Your task to perform on an android device: Add "usb-b" to the cart on walmart, then select checkout. Image 0: 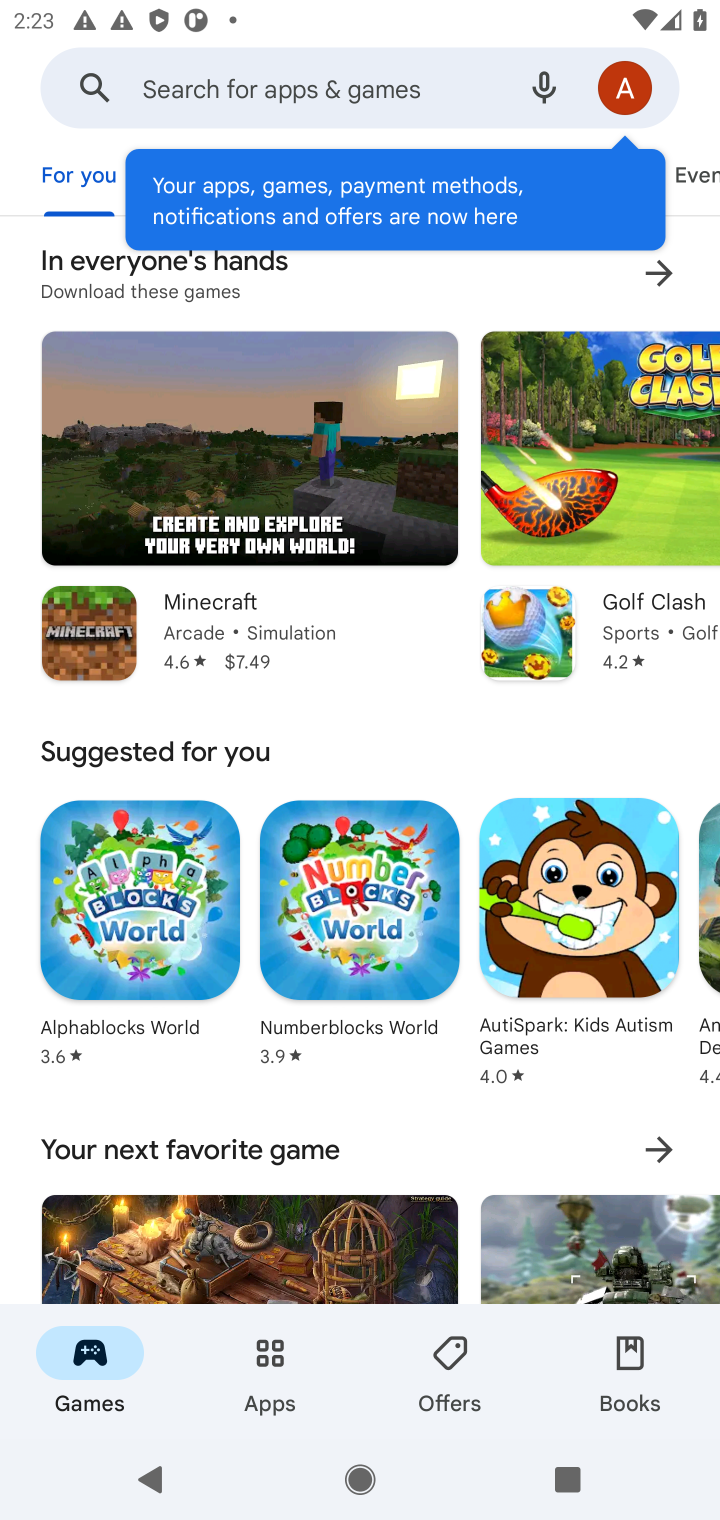
Step 0: press home button
Your task to perform on an android device: Add "usb-b" to the cart on walmart, then select checkout. Image 1: 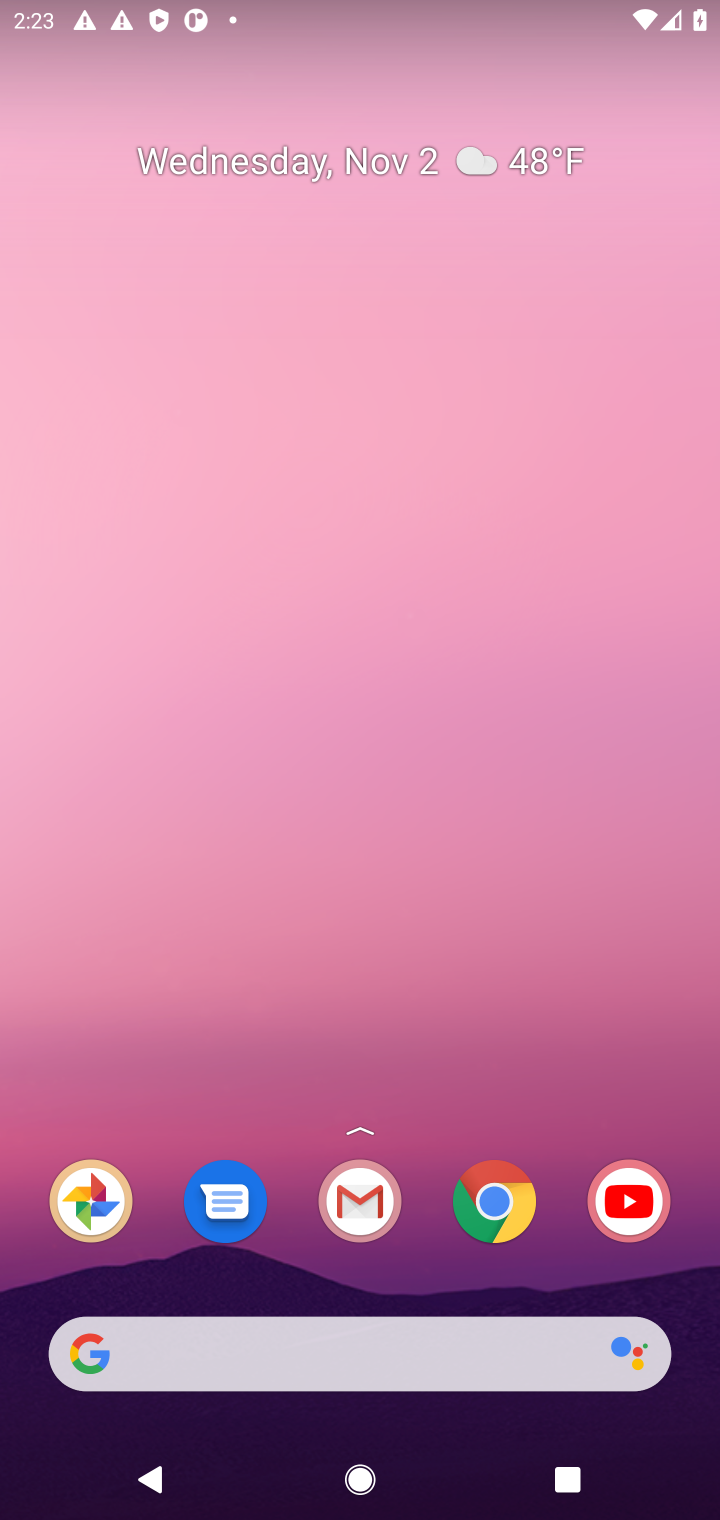
Step 1: click (497, 1210)
Your task to perform on an android device: Add "usb-b" to the cart on walmart, then select checkout. Image 2: 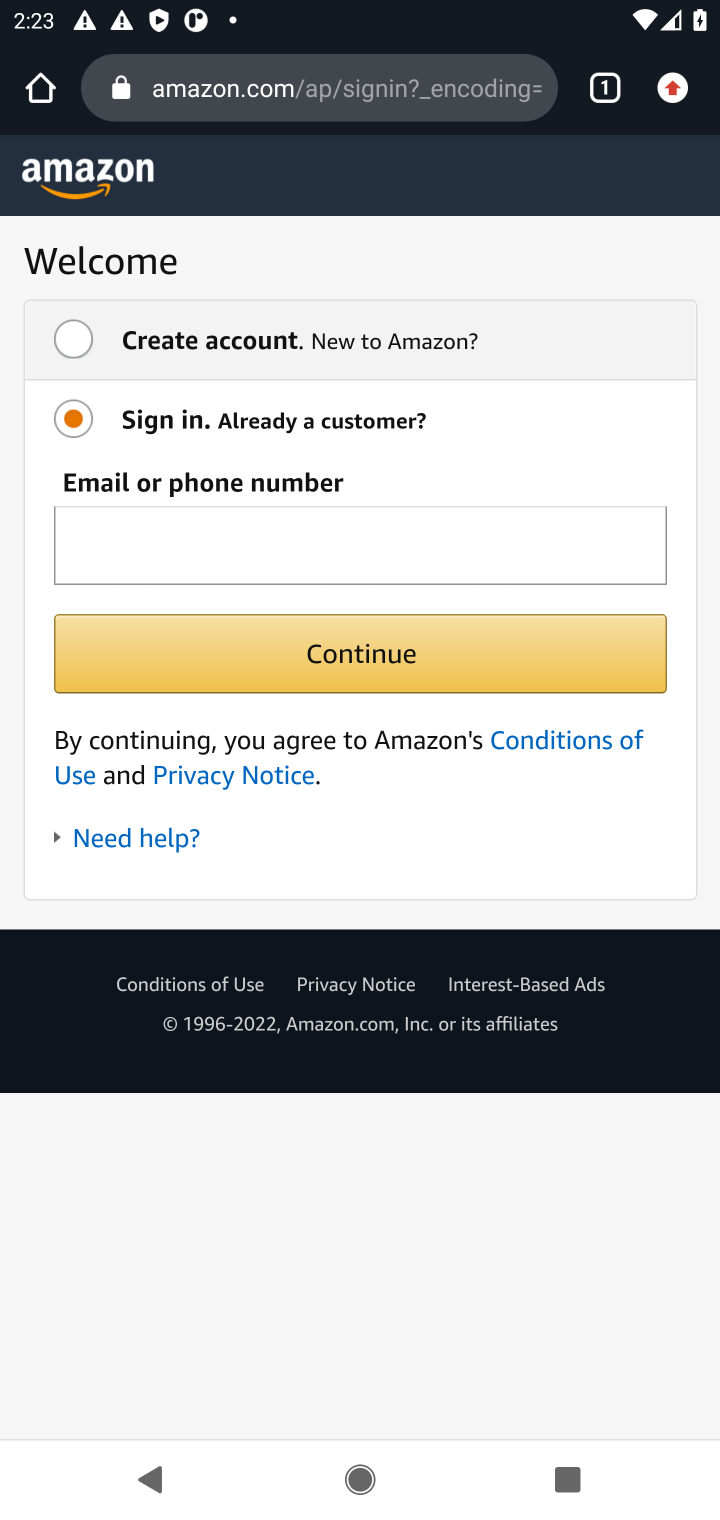
Step 2: click (454, 87)
Your task to perform on an android device: Add "usb-b" to the cart on walmart, then select checkout. Image 3: 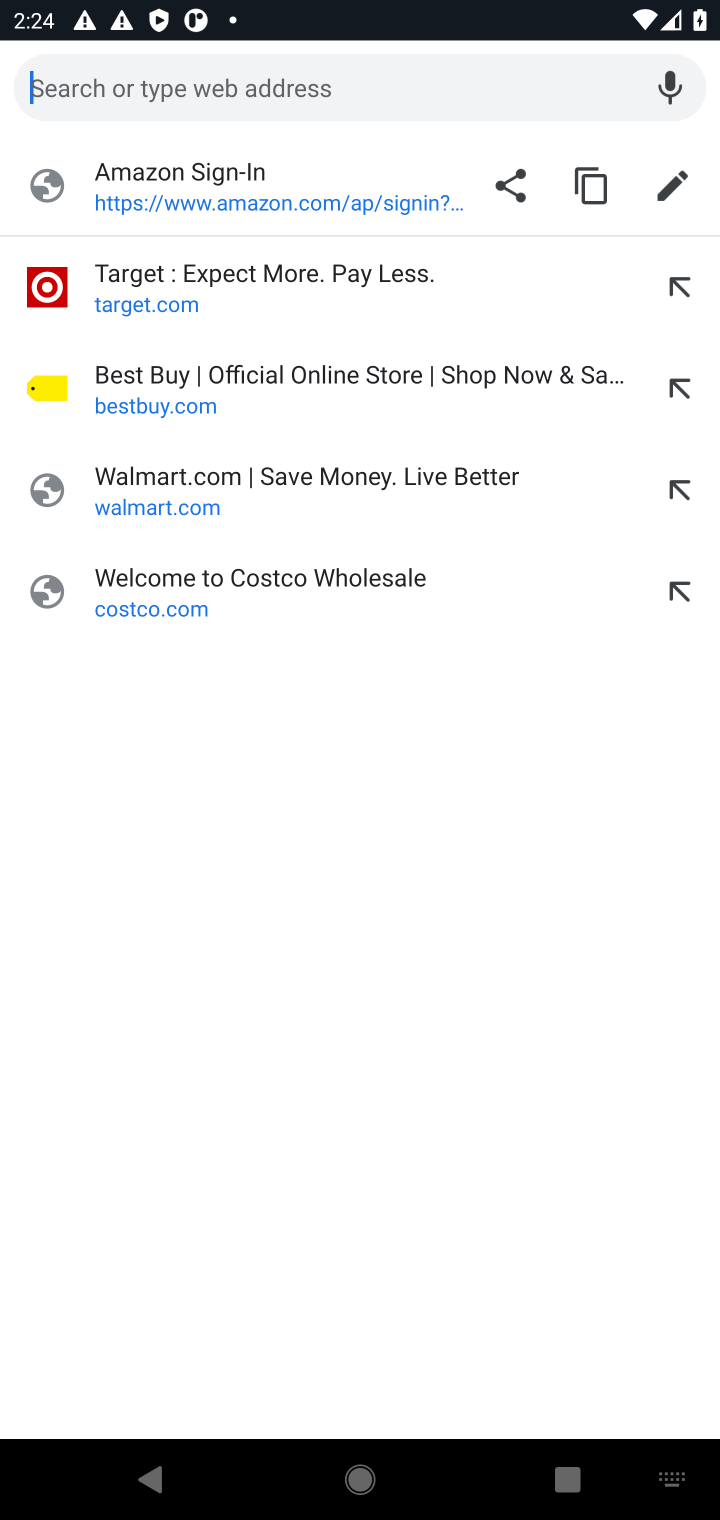
Step 3: click (201, 485)
Your task to perform on an android device: Add "usb-b" to the cart on walmart, then select checkout. Image 4: 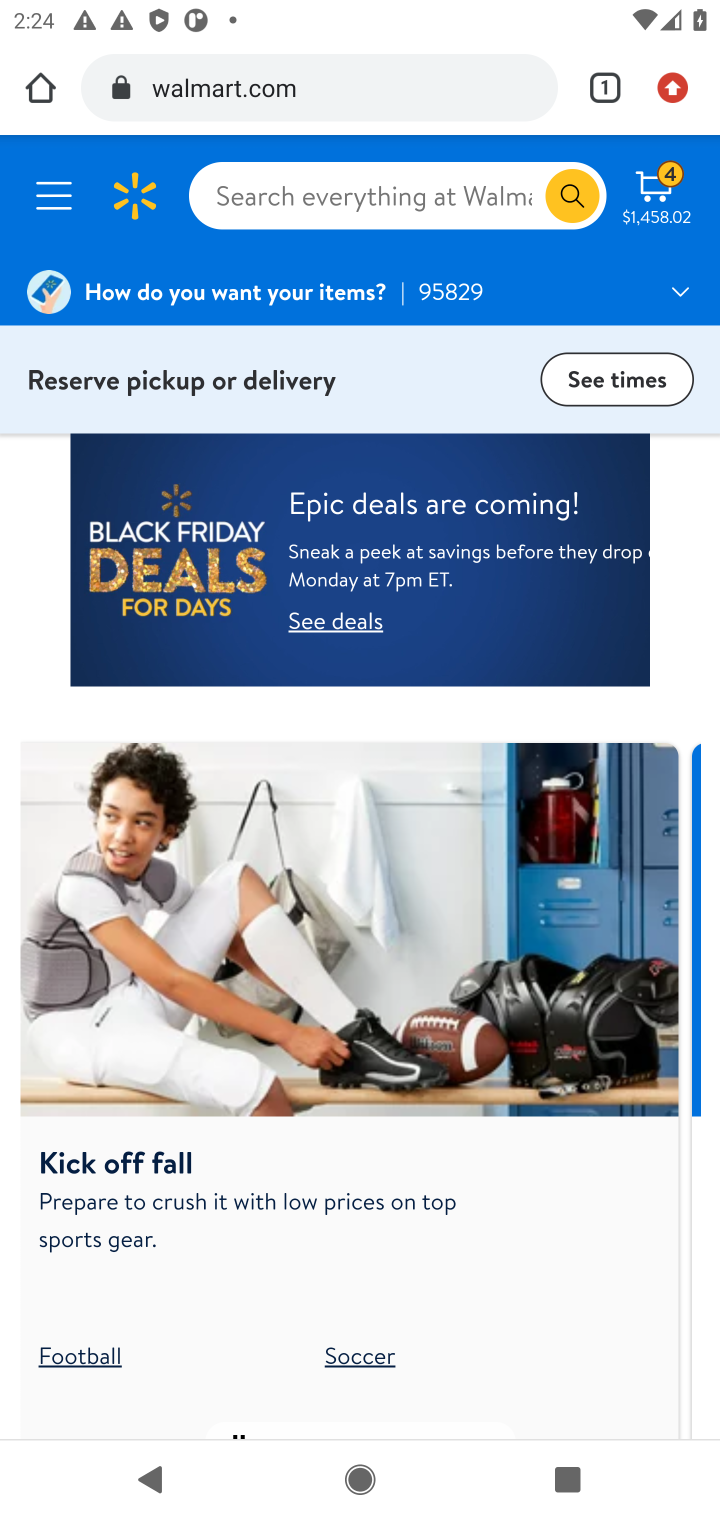
Step 4: click (414, 188)
Your task to perform on an android device: Add "usb-b" to the cart on walmart, then select checkout. Image 5: 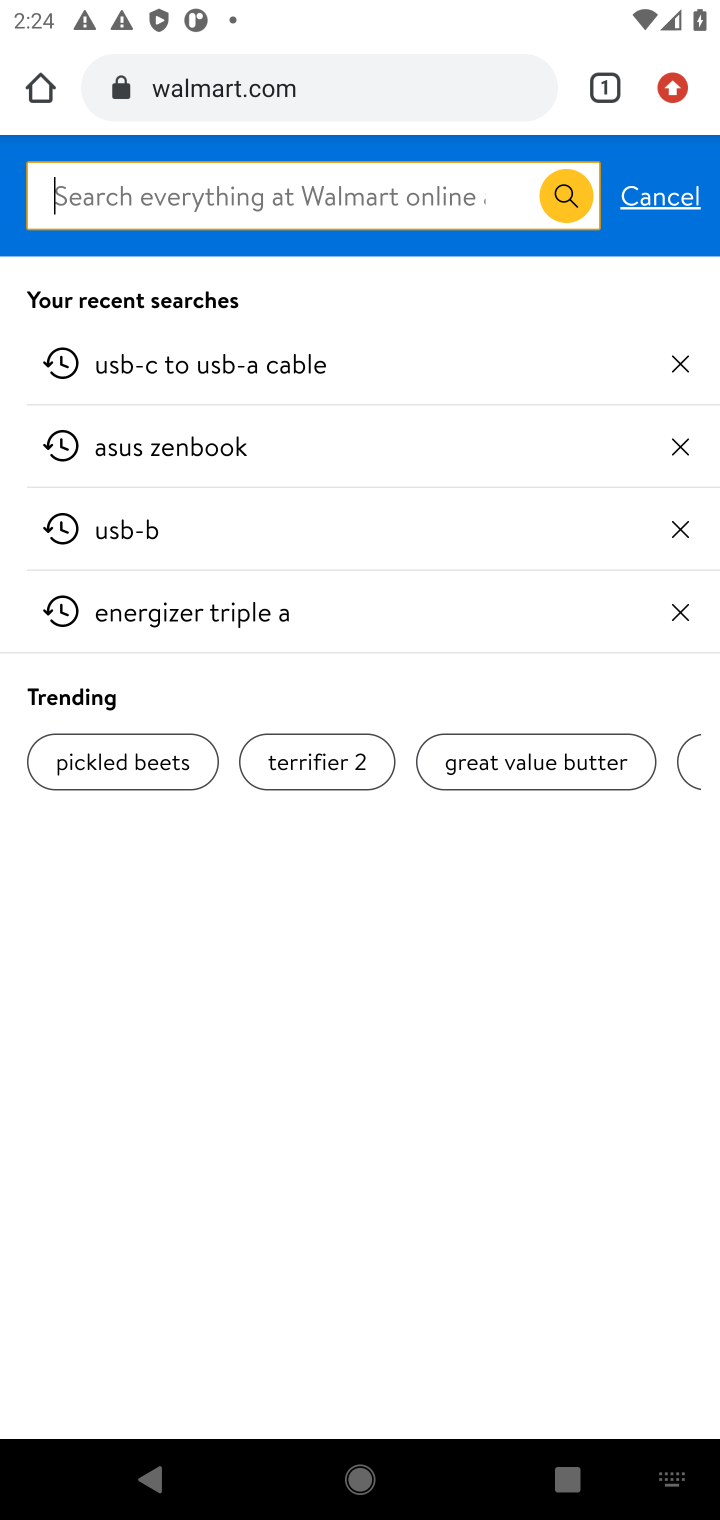
Step 5: click (125, 525)
Your task to perform on an android device: Add "usb-b" to the cart on walmart, then select checkout. Image 6: 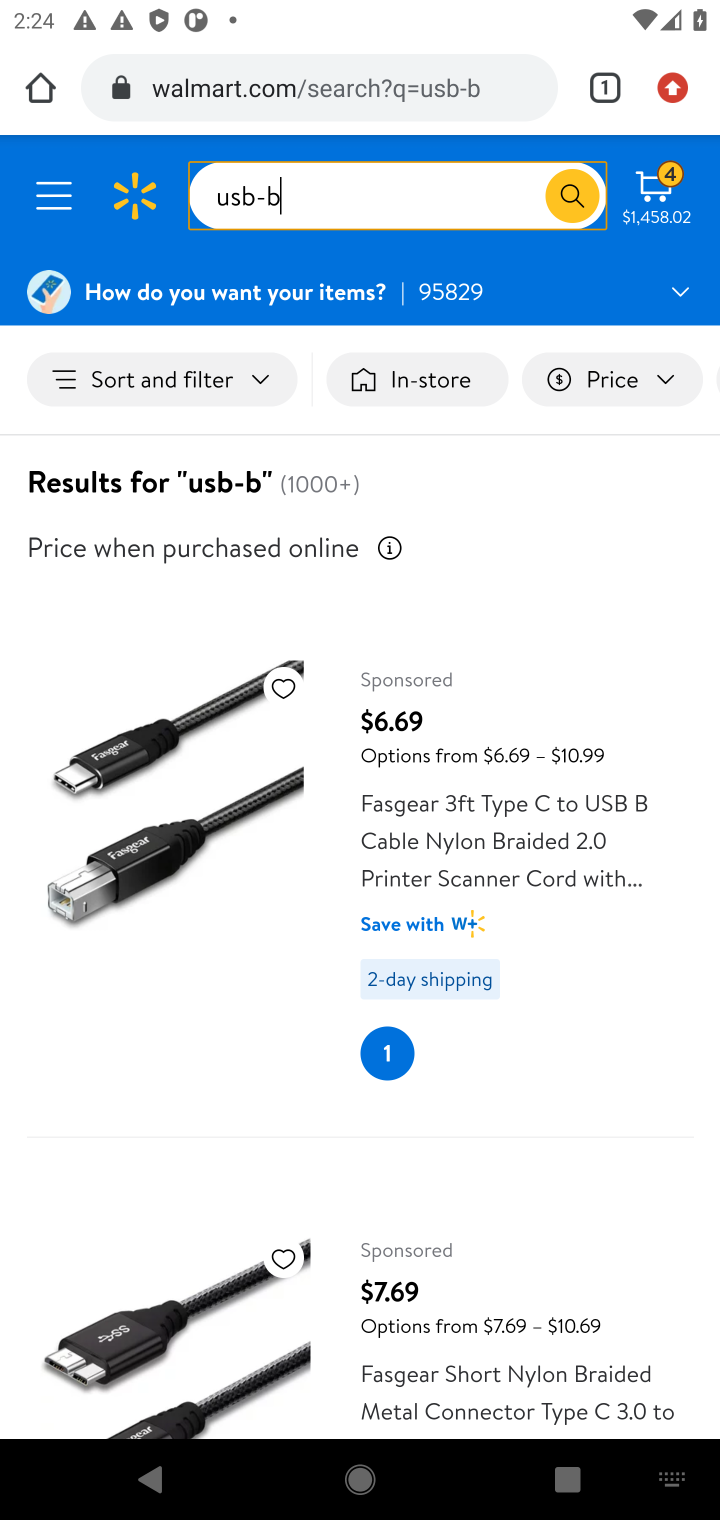
Step 6: click (184, 829)
Your task to perform on an android device: Add "usb-b" to the cart on walmart, then select checkout. Image 7: 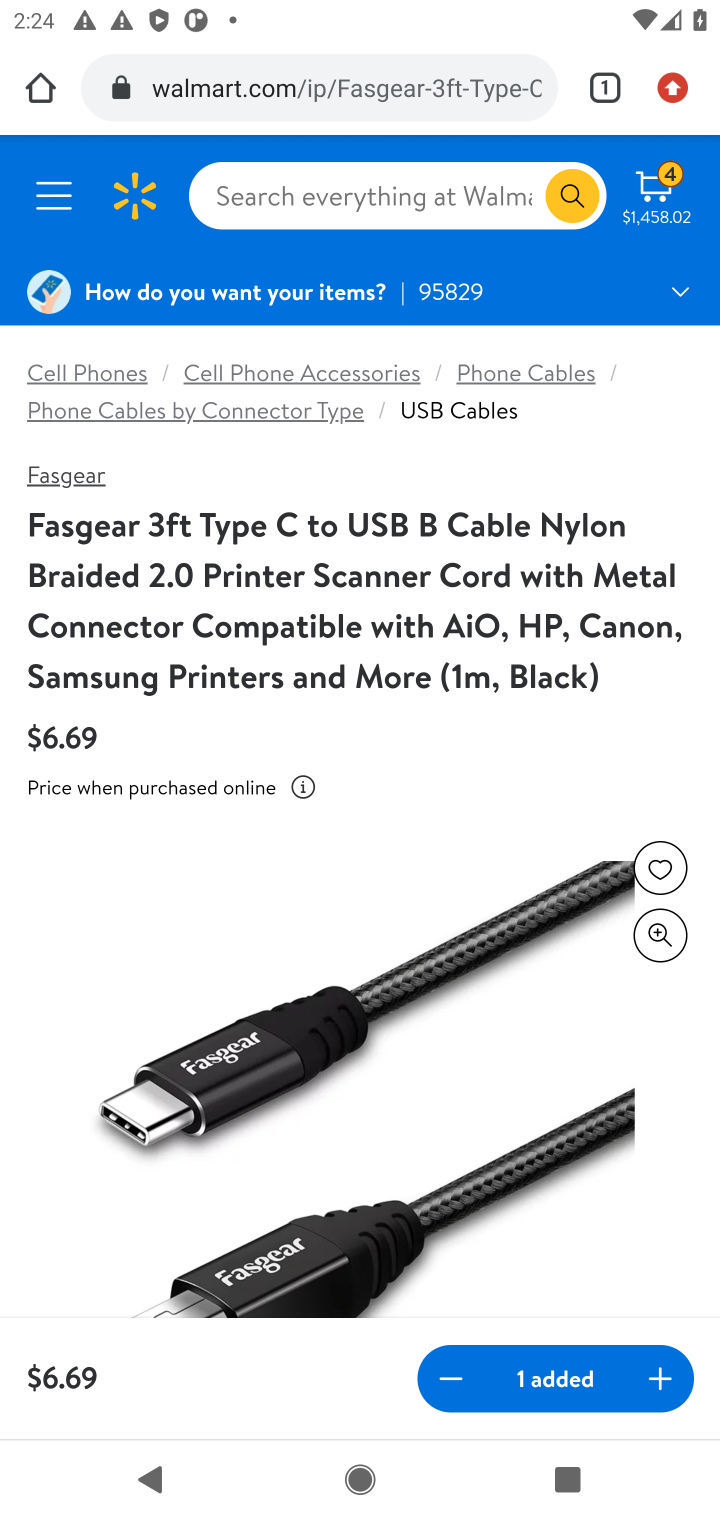
Step 7: drag from (457, 1012) to (429, 364)
Your task to perform on an android device: Add "usb-b" to the cart on walmart, then select checkout. Image 8: 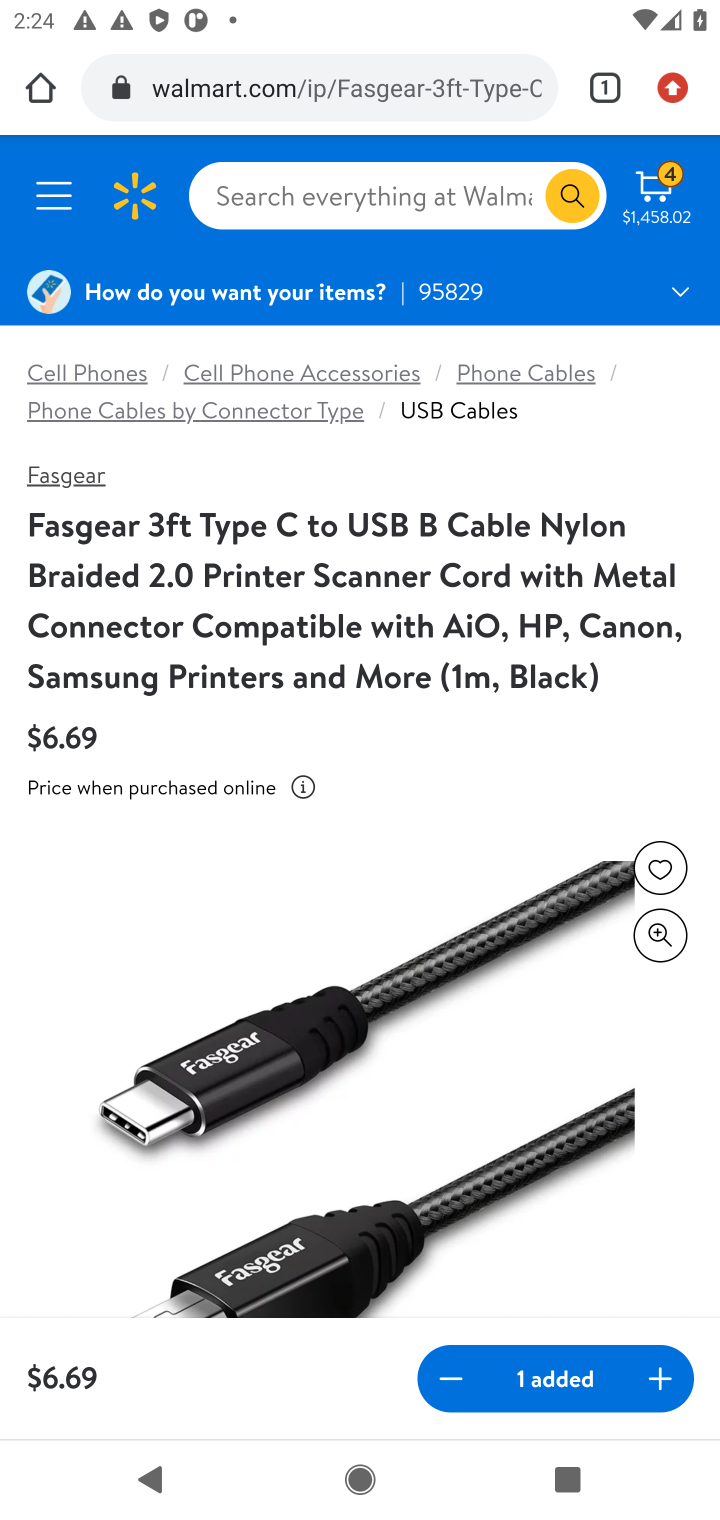
Step 8: drag from (276, 1144) to (356, 532)
Your task to perform on an android device: Add "usb-b" to the cart on walmart, then select checkout. Image 9: 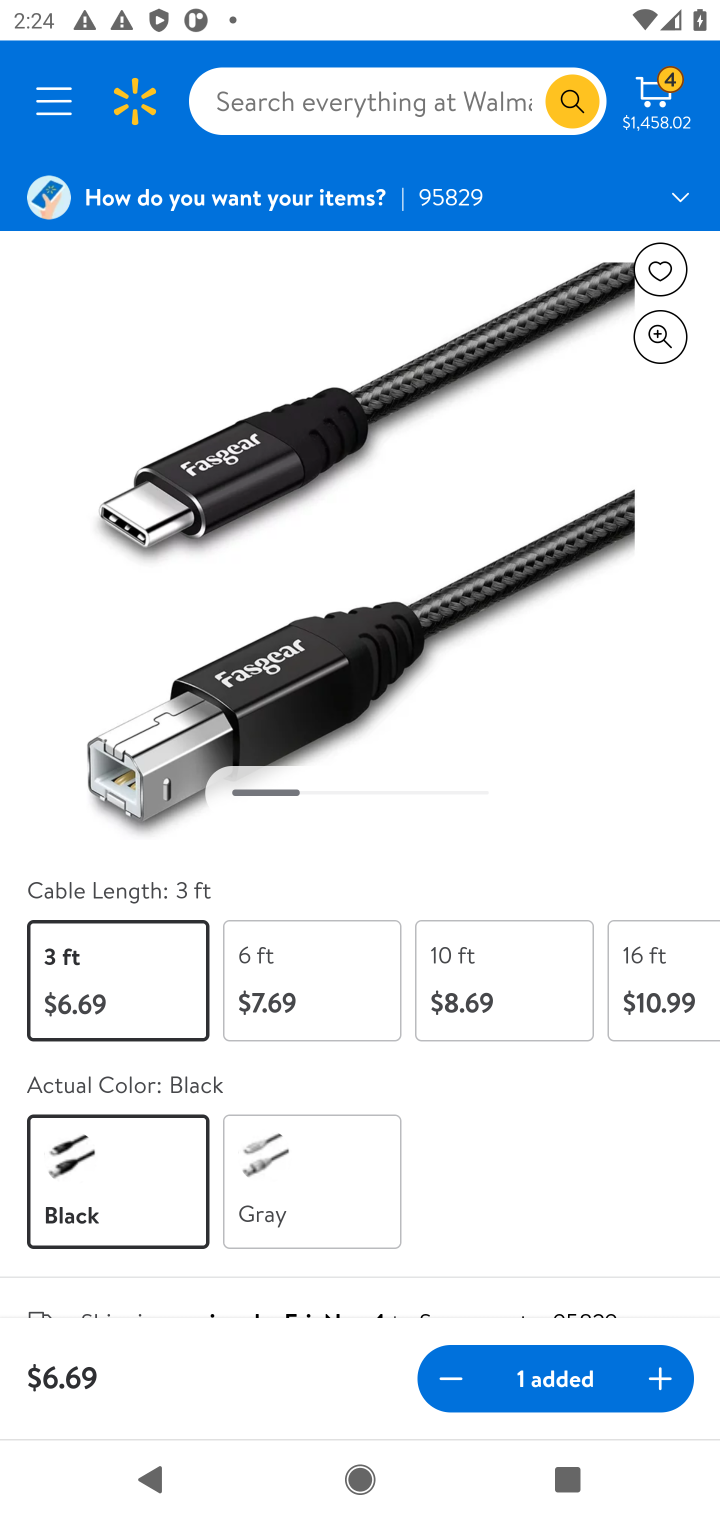
Step 9: drag from (429, 1116) to (512, 565)
Your task to perform on an android device: Add "usb-b" to the cart on walmart, then select checkout. Image 10: 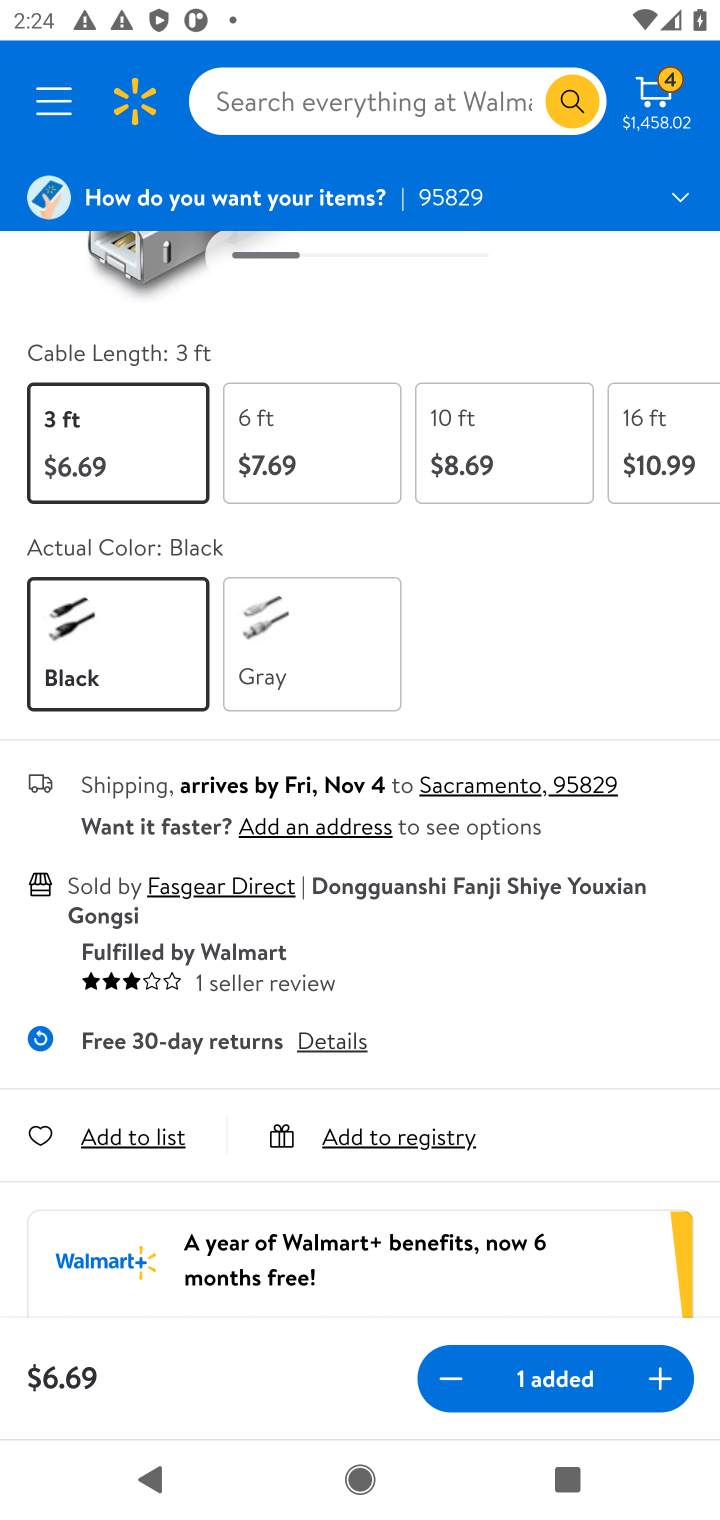
Step 10: click (148, 1136)
Your task to perform on an android device: Add "usb-b" to the cart on walmart, then select checkout. Image 11: 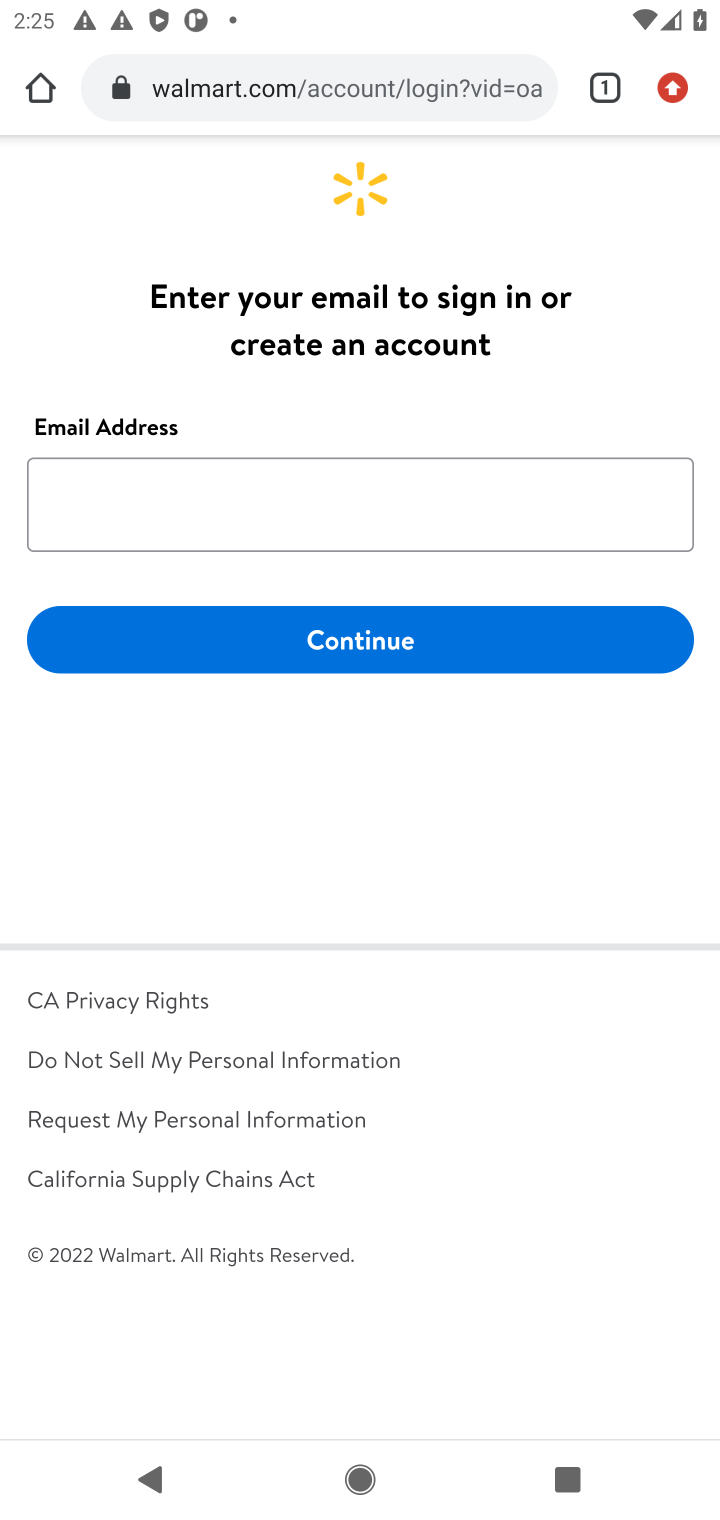
Step 11: press back button
Your task to perform on an android device: Add "usb-b" to the cart on walmart, then select checkout. Image 12: 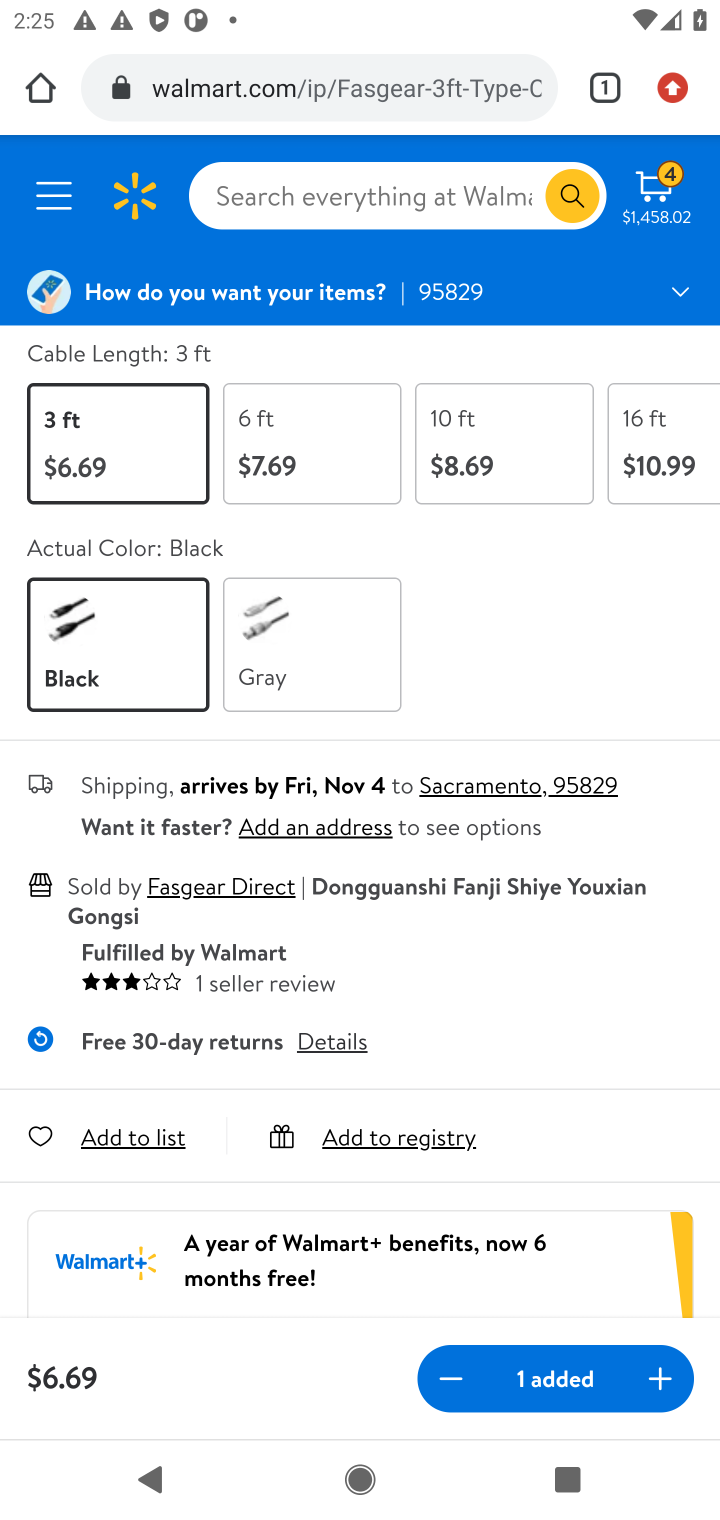
Step 12: click (653, 207)
Your task to perform on an android device: Add "usb-b" to the cart on walmart, then select checkout. Image 13: 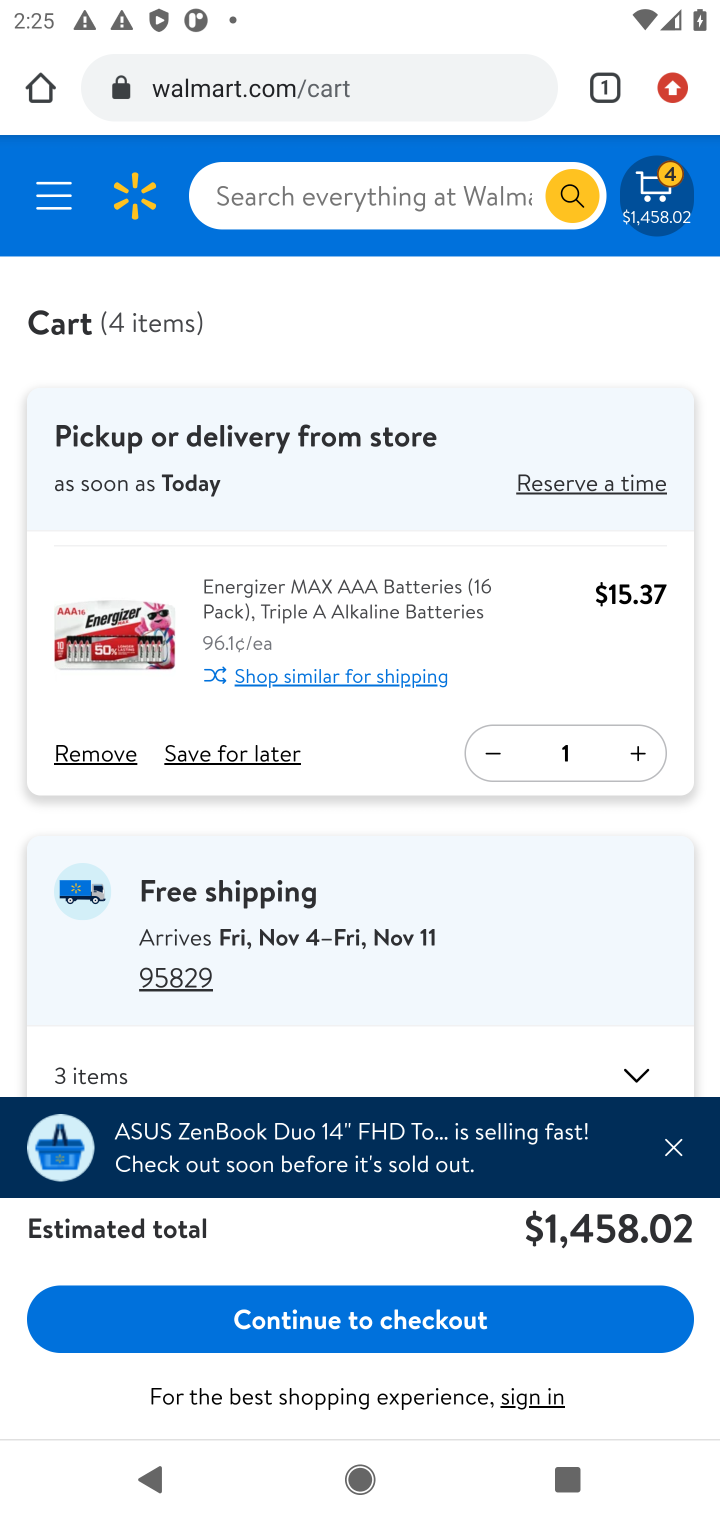
Step 13: click (395, 1327)
Your task to perform on an android device: Add "usb-b" to the cart on walmart, then select checkout. Image 14: 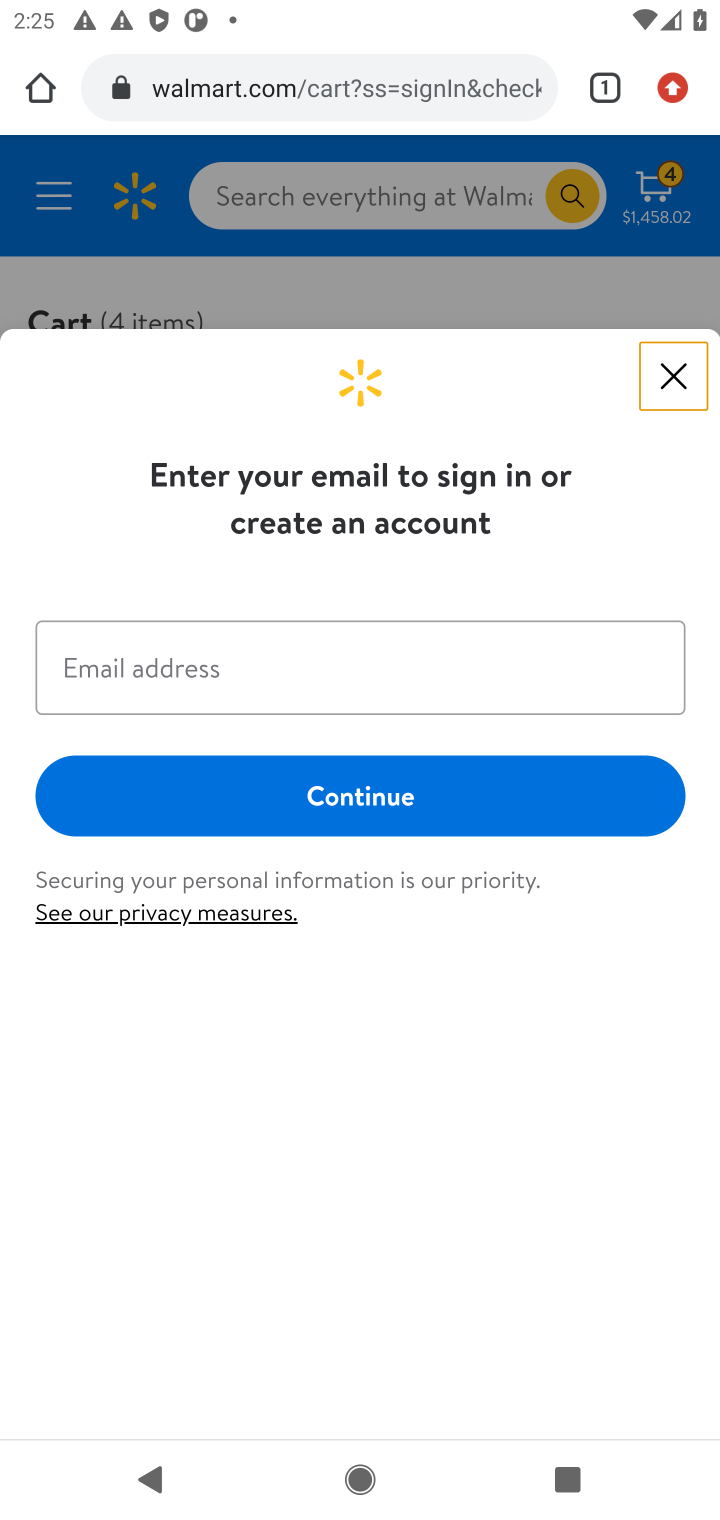
Step 14: task complete